Your task to perform on an android device: change the clock display to digital Image 0: 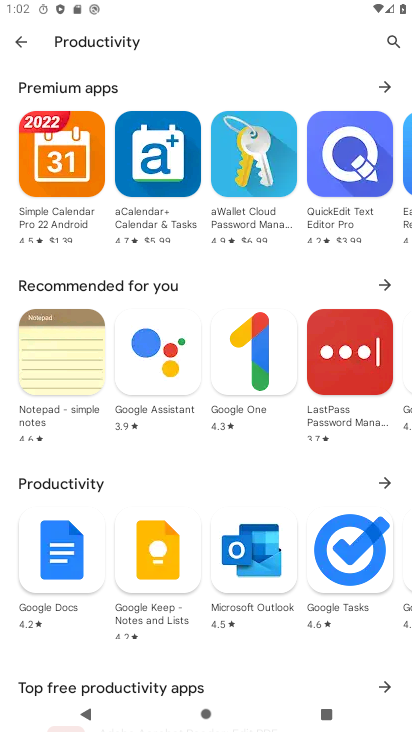
Step 0: press home button
Your task to perform on an android device: change the clock display to digital Image 1: 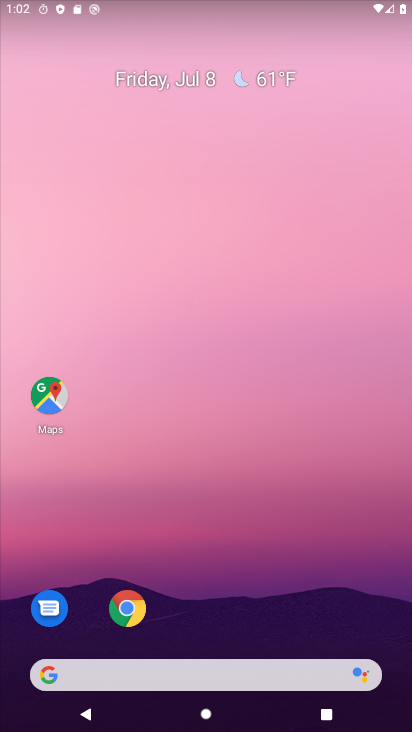
Step 1: drag from (225, 638) to (315, 87)
Your task to perform on an android device: change the clock display to digital Image 2: 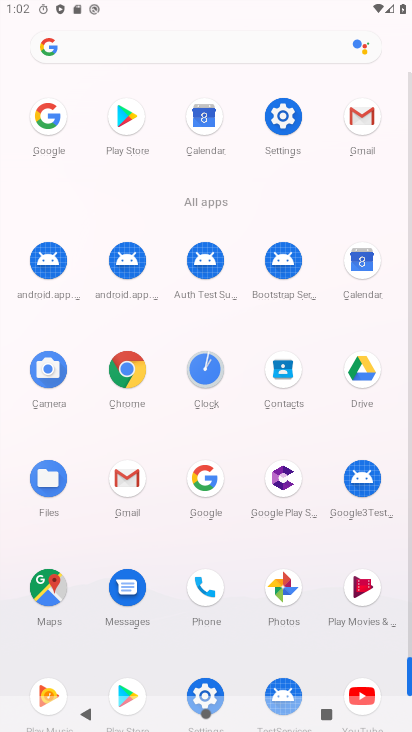
Step 2: click (207, 370)
Your task to perform on an android device: change the clock display to digital Image 3: 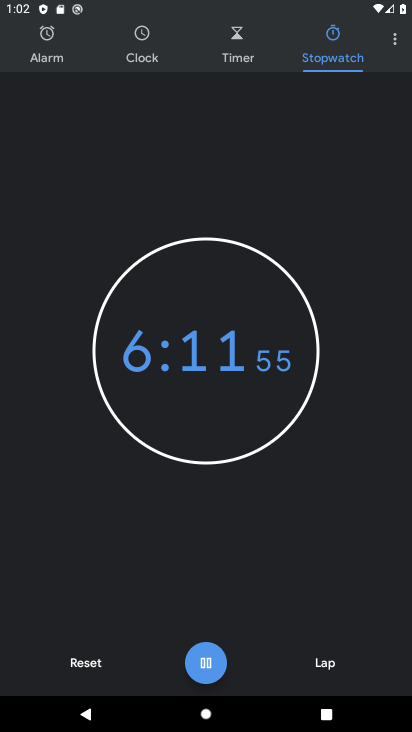
Step 3: click (391, 34)
Your task to perform on an android device: change the clock display to digital Image 4: 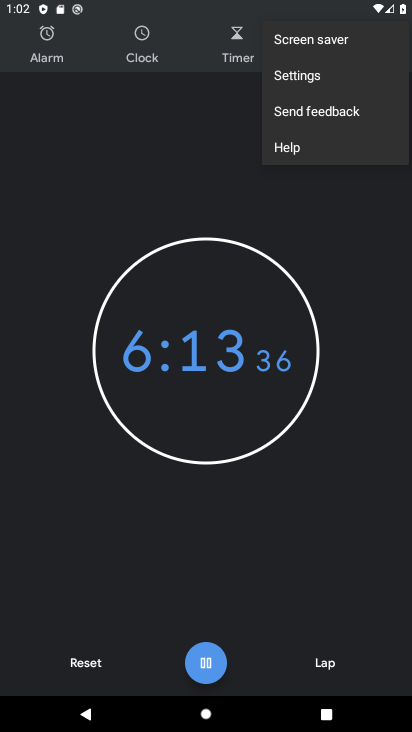
Step 4: click (316, 70)
Your task to perform on an android device: change the clock display to digital Image 5: 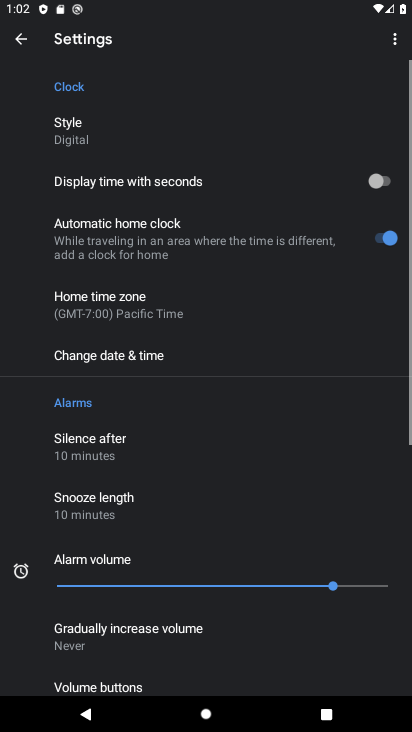
Step 5: click (88, 127)
Your task to perform on an android device: change the clock display to digital Image 6: 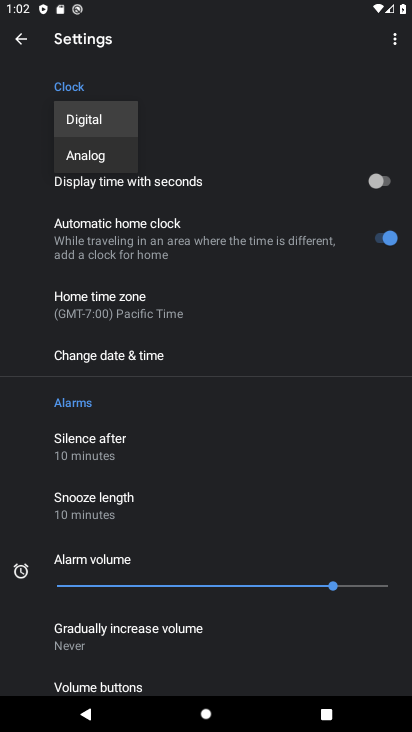
Step 6: task complete